Your task to perform on an android device: What is the news today? Image 0: 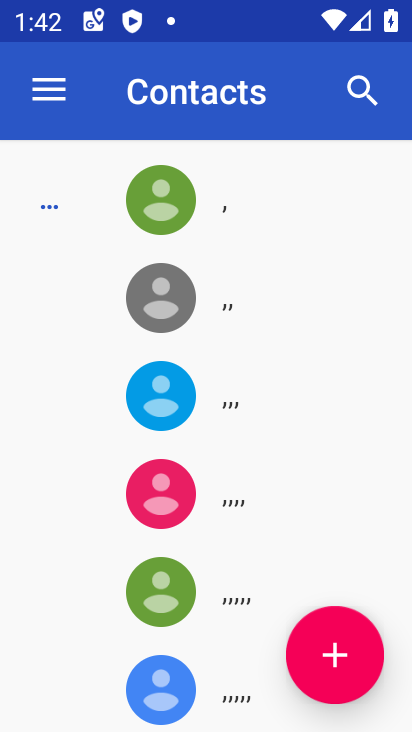
Step 0: press home button
Your task to perform on an android device: What is the news today? Image 1: 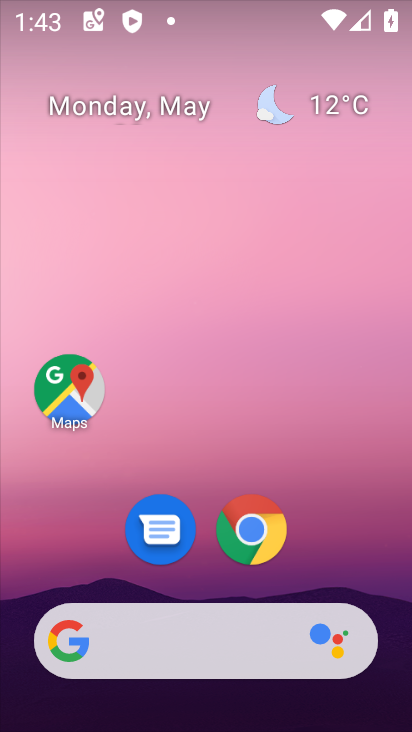
Step 1: task complete